Your task to perform on an android device: open wifi settings Image 0: 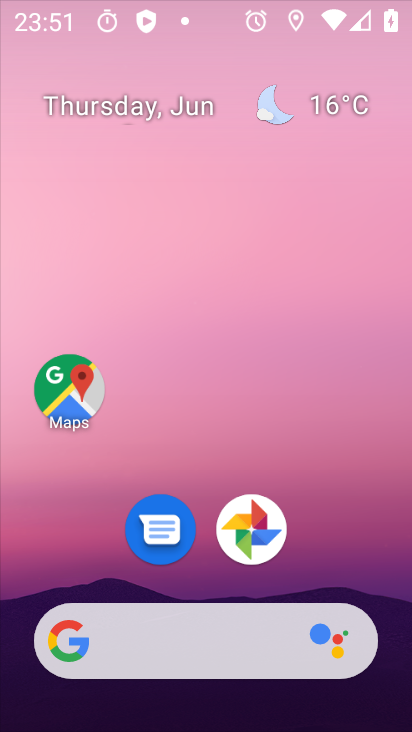
Step 0: drag from (227, 688) to (146, 60)
Your task to perform on an android device: open wifi settings Image 1: 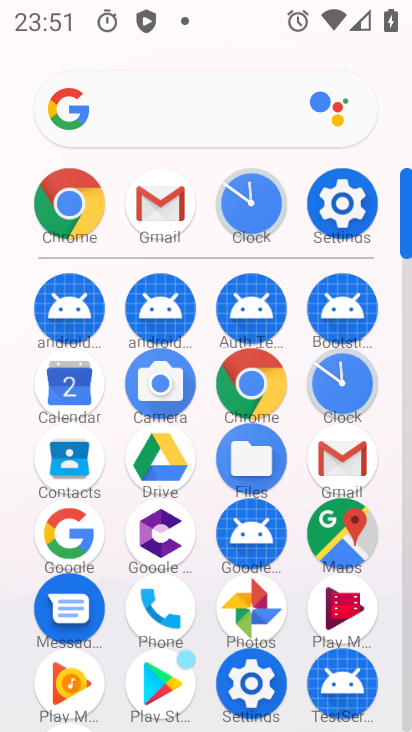
Step 1: click (330, 207)
Your task to perform on an android device: open wifi settings Image 2: 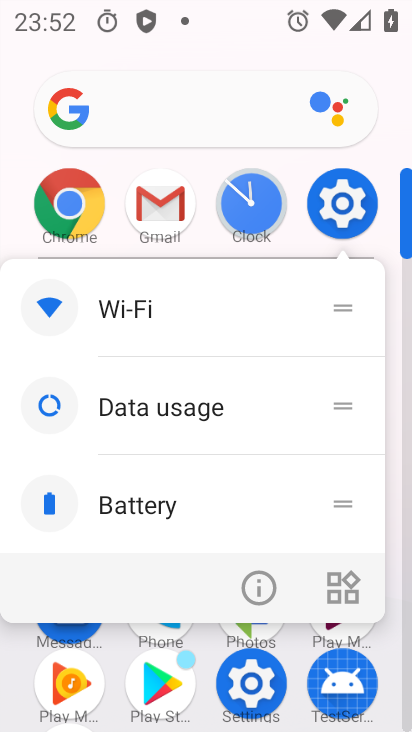
Step 2: click (149, 318)
Your task to perform on an android device: open wifi settings Image 3: 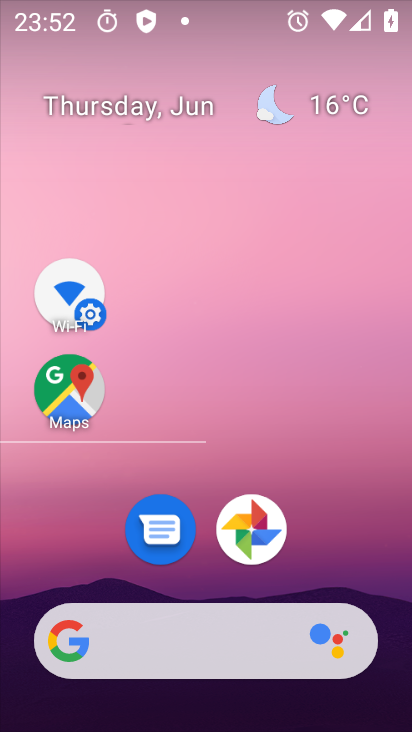
Step 3: drag from (227, 649) to (184, 1)
Your task to perform on an android device: open wifi settings Image 4: 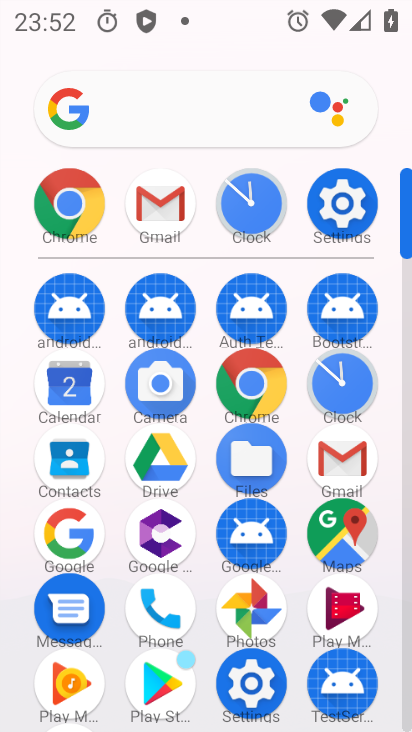
Step 4: click (335, 218)
Your task to perform on an android device: open wifi settings Image 5: 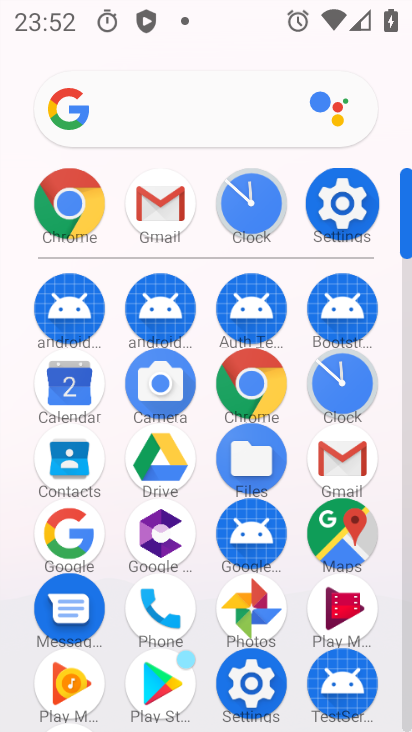
Step 5: click (336, 218)
Your task to perform on an android device: open wifi settings Image 6: 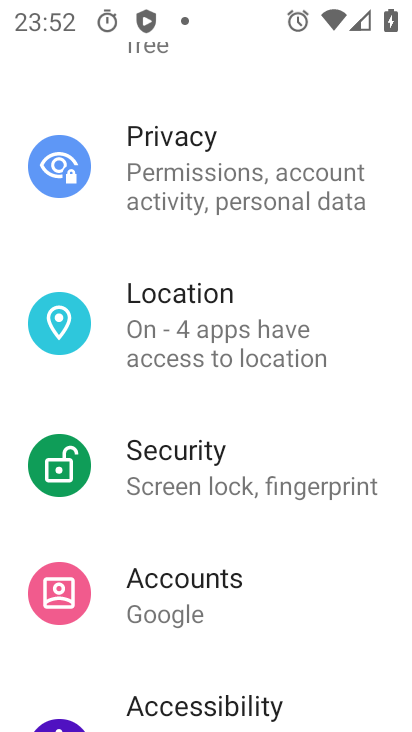
Step 6: drag from (179, 210) to (252, 518)
Your task to perform on an android device: open wifi settings Image 7: 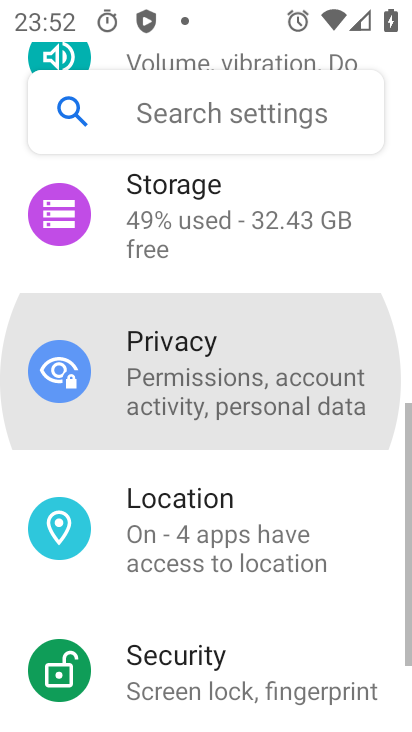
Step 7: drag from (214, 220) to (221, 589)
Your task to perform on an android device: open wifi settings Image 8: 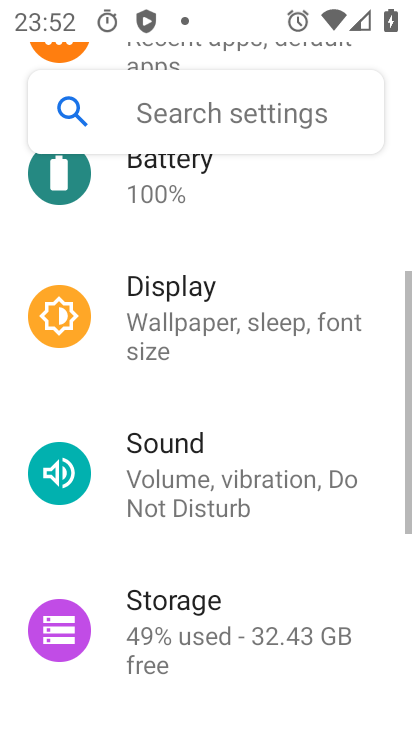
Step 8: drag from (162, 247) to (208, 591)
Your task to perform on an android device: open wifi settings Image 9: 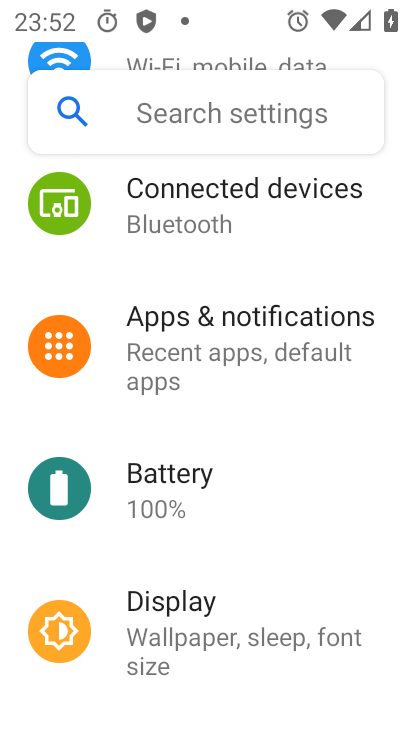
Step 9: drag from (162, 236) to (218, 628)
Your task to perform on an android device: open wifi settings Image 10: 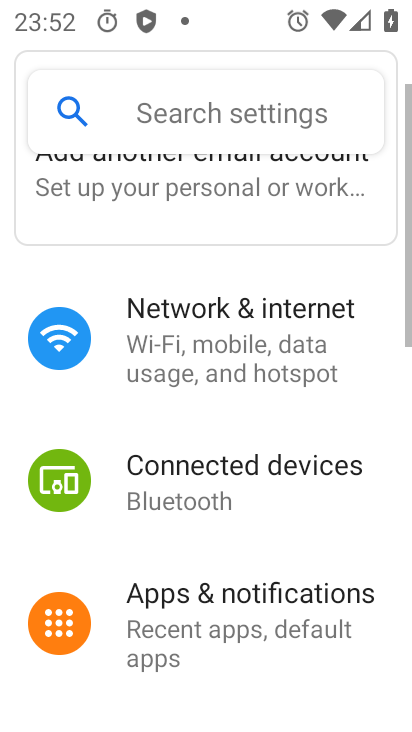
Step 10: drag from (172, 251) to (215, 567)
Your task to perform on an android device: open wifi settings Image 11: 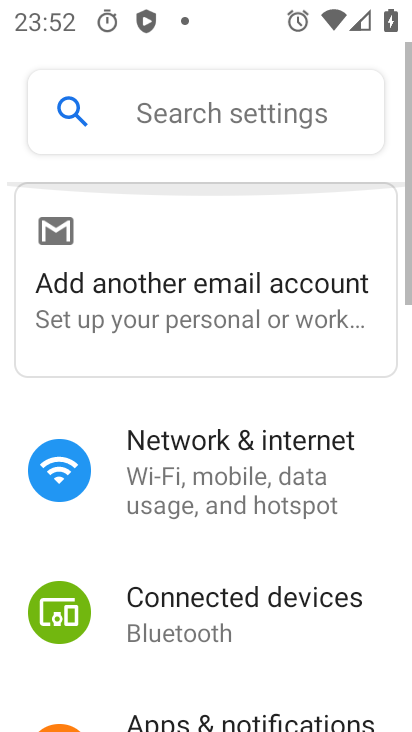
Step 11: drag from (196, 396) to (233, 656)
Your task to perform on an android device: open wifi settings Image 12: 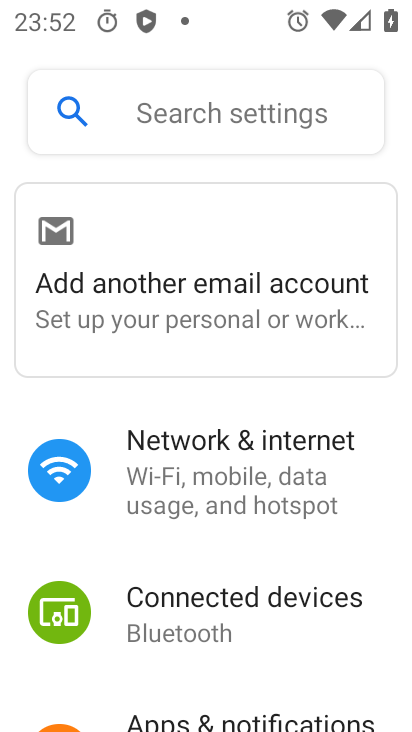
Step 12: click (219, 465)
Your task to perform on an android device: open wifi settings Image 13: 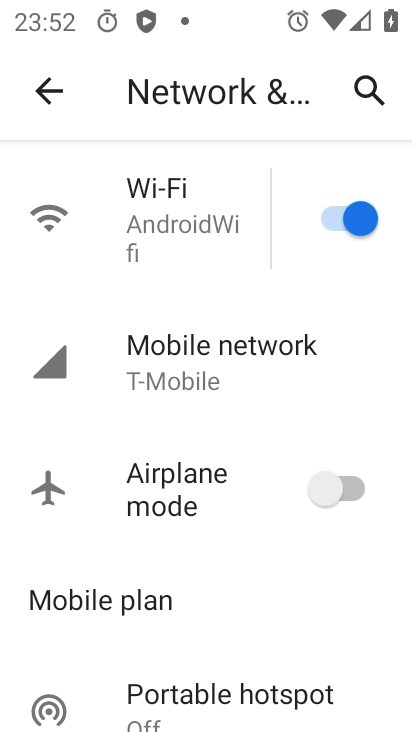
Step 13: task complete